Your task to perform on an android device: clear all cookies in the chrome app Image 0: 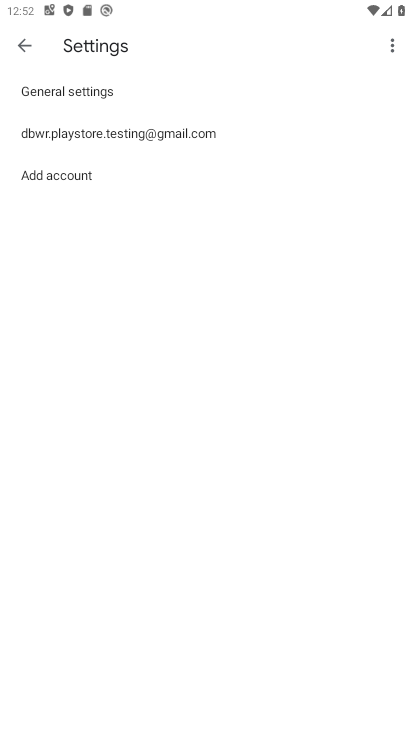
Step 0: press home button
Your task to perform on an android device: clear all cookies in the chrome app Image 1: 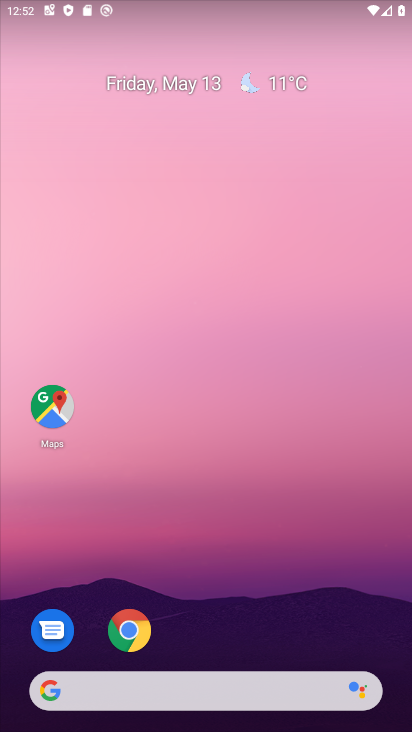
Step 1: click (131, 642)
Your task to perform on an android device: clear all cookies in the chrome app Image 2: 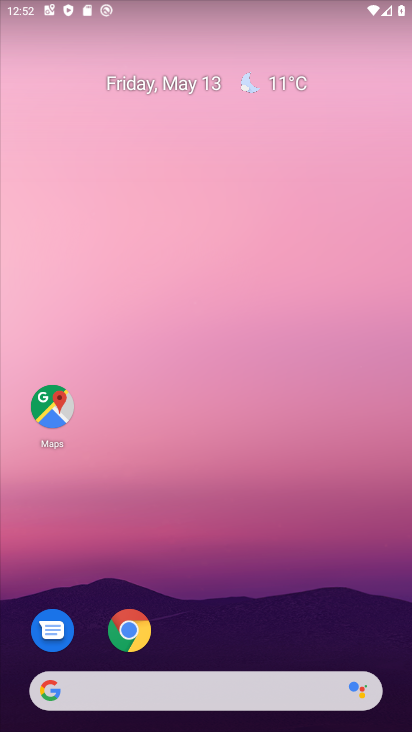
Step 2: click (132, 632)
Your task to perform on an android device: clear all cookies in the chrome app Image 3: 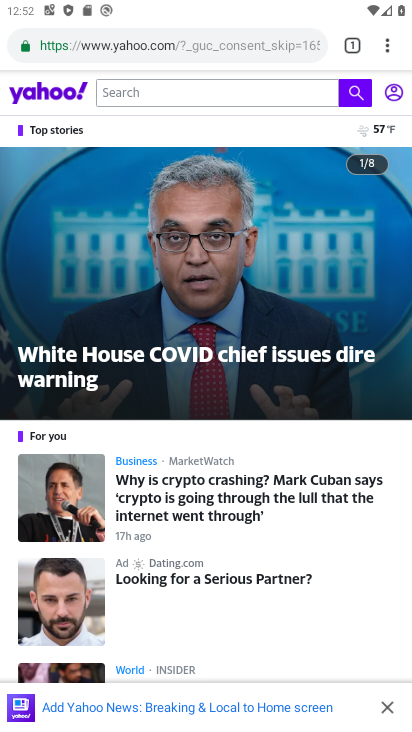
Step 3: drag from (388, 42) to (249, 548)
Your task to perform on an android device: clear all cookies in the chrome app Image 4: 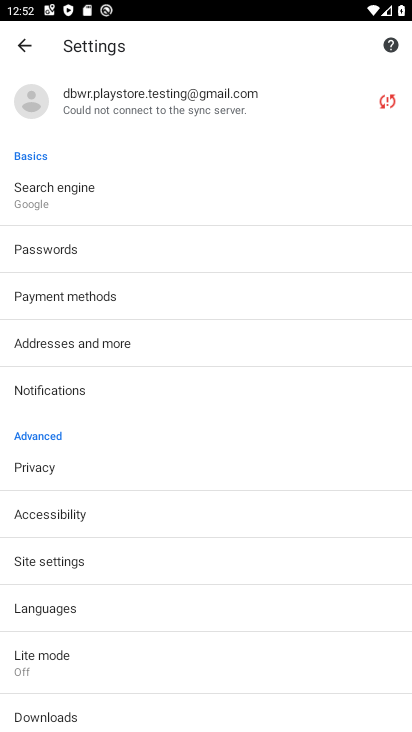
Step 4: click (56, 477)
Your task to perform on an android device: clear all cookies in the chrome app Image 5: 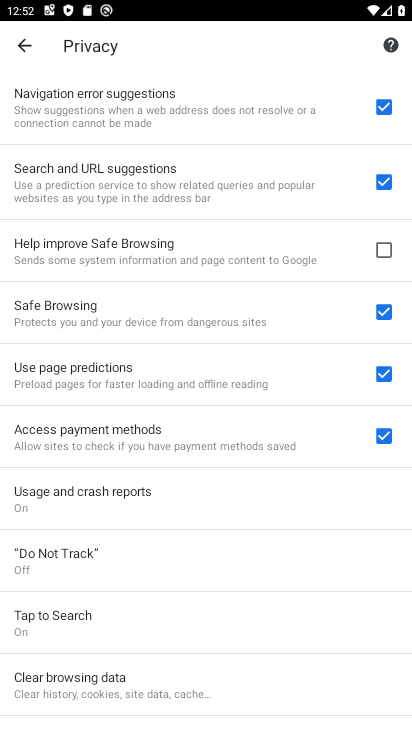
Step 5: click (98, 682)
Your task to perform on an android device: clear all cookies in the chrome app Image 6: 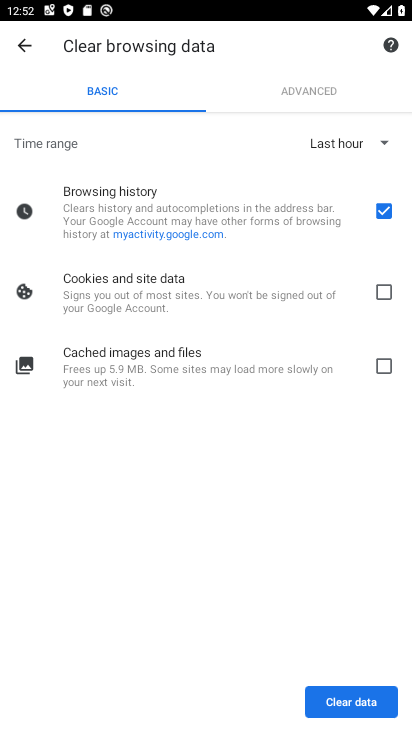
Step 6: click (375, 208)
Your task to perform on an android device: clear all cookies in the chrome app Image 7: 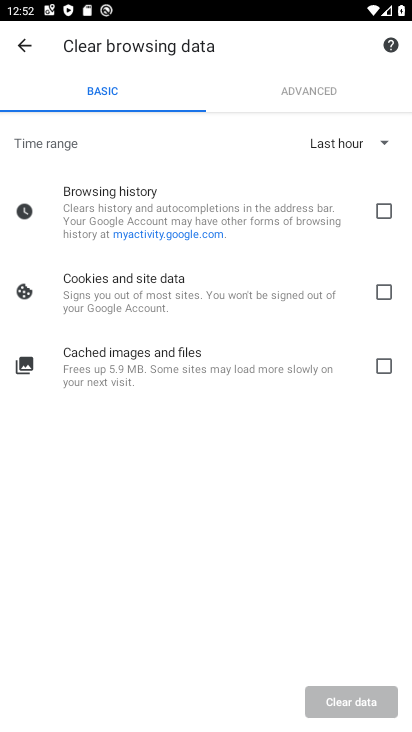
Step 7: click (383, 289)
Your task to perform on an android device: clear all cookies in the chrome app Image 8: 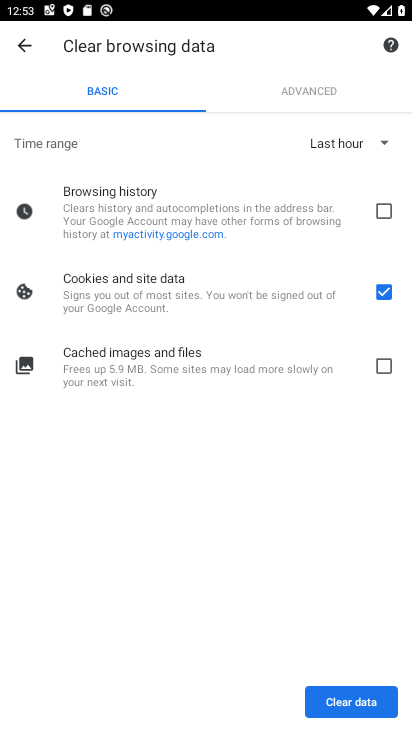
Step 8: click (354, 697)
Your task to perform on an android device: clear all cookies in the chrome app Image 9: 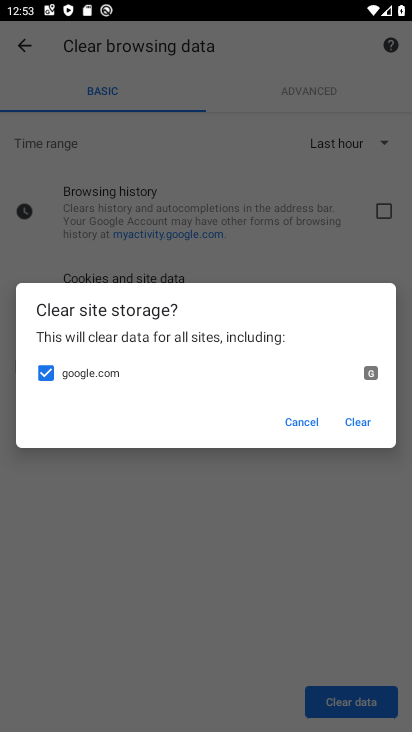
Step 9: click (354, 433)
Your task to perform on an android device: clear all cookies in the chrome app Image 10: 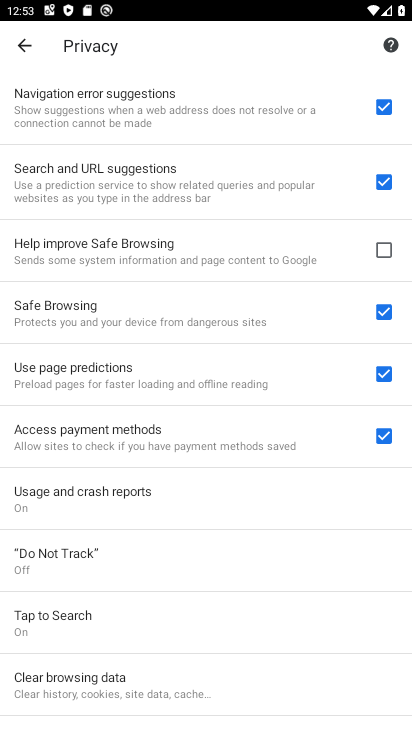
Step 10: task complete